Your task to perform on an android device: change keyboard looks Image 0: 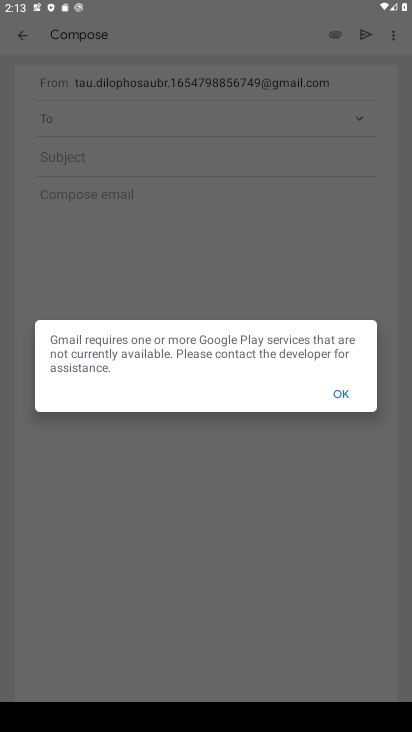
Step 0: press home button
Your task to perform on an android device: change keyboard looks Image 1: 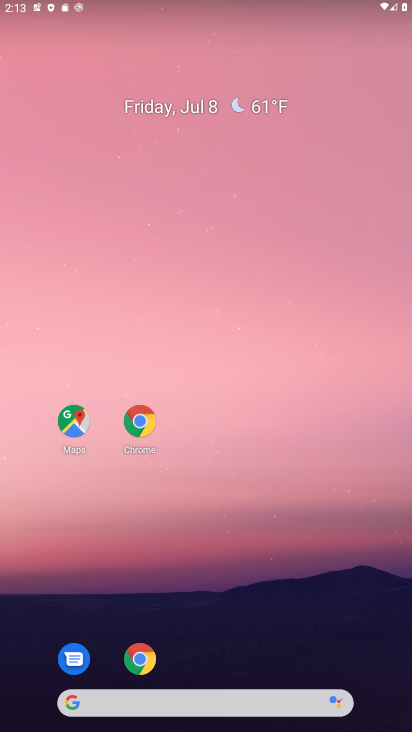
Step 1: drag from (221, 652) to (215, 157)
Your task to perform on an android device: change keyboard looks Image 2: 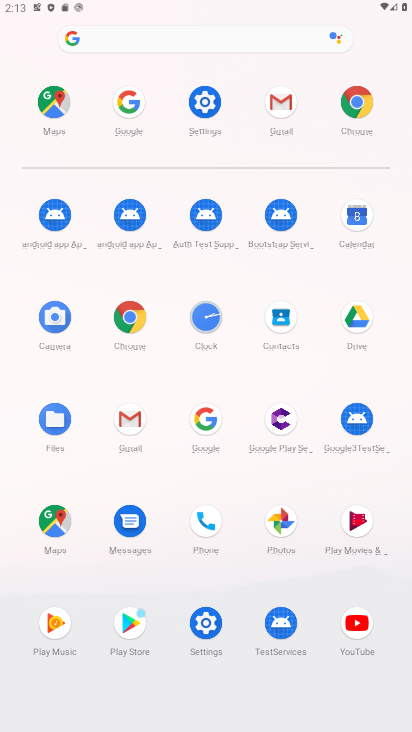
Step 2: click (205, 110)
Your task to perform on an android device: change keyboard looks Image 3: 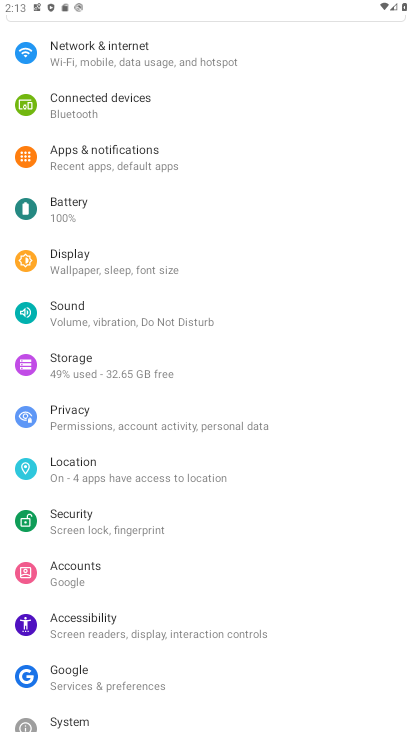
Step 3: click (89, 707)
Your task to perform on an android device: change keyboard looks Image 4: 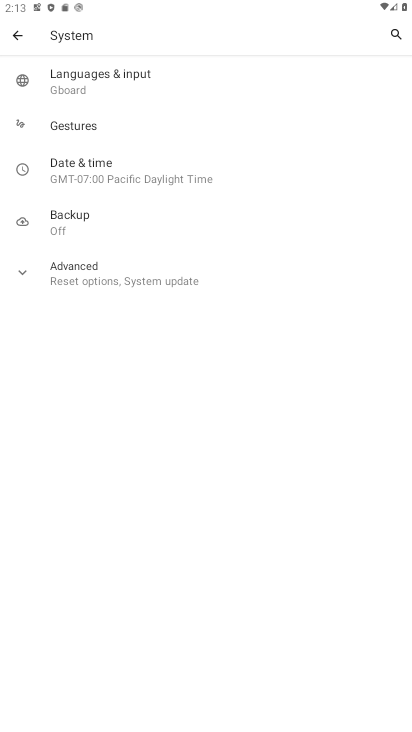
Step 4: click (77, 89)
Your task to perform on an android device: change keyboard looks Image 5: 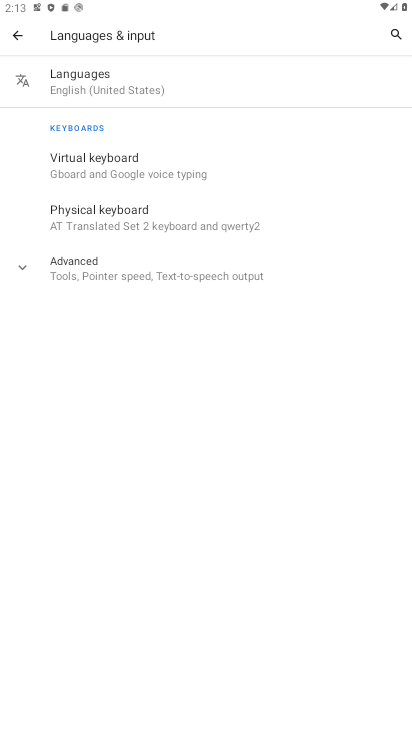
Step 5: click (104, 152)
Your task to perform on an android device: change keyboard looks Image 6: 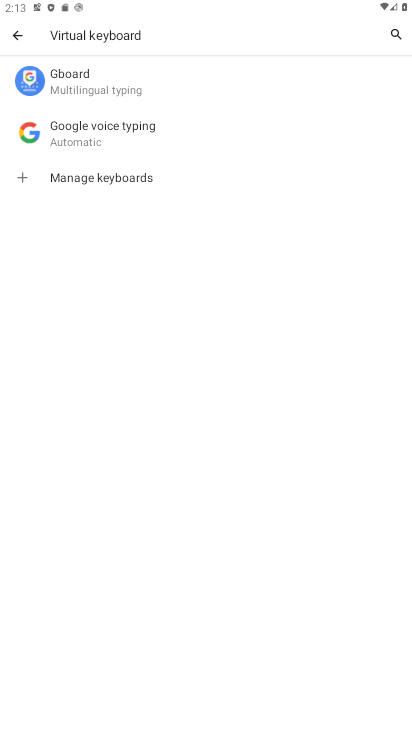
Step 6: click (63, 68)
Your task to perform on an android device: change keyboard looks Image 7: 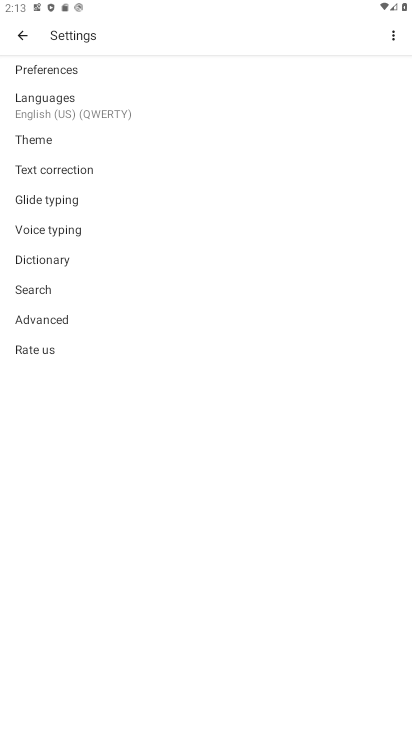
Step 7: click (49, 138)
Your task to perform on an android device: change keyboard looks Image 8: 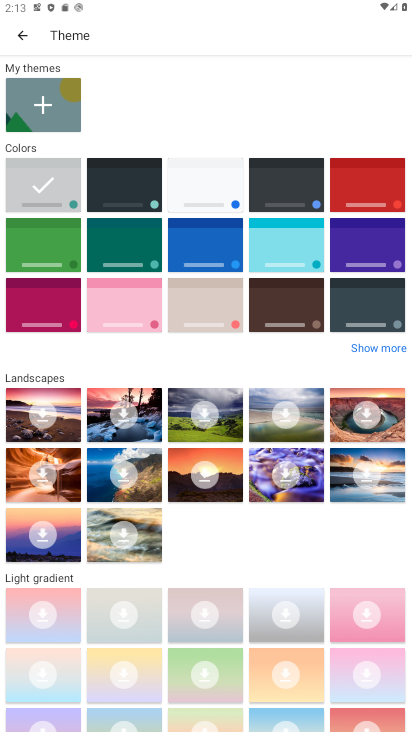
Step 8: click (135, 190)
Your task to perform on an android device: change keyboard looks Image 9: 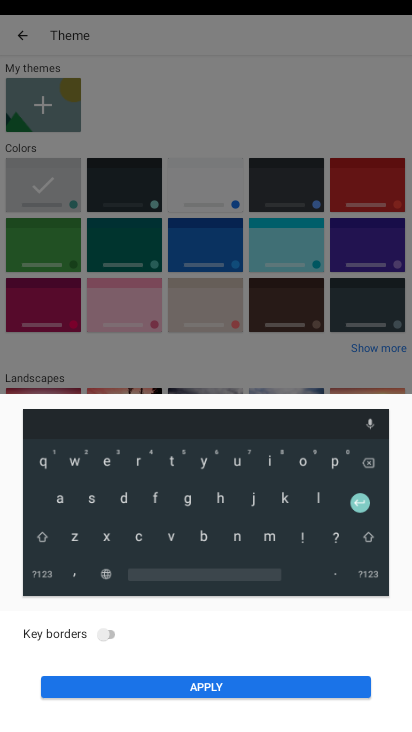
Step 9: click (193, 679)
Your task to perform on an android device: change keyboard looks Image 10: 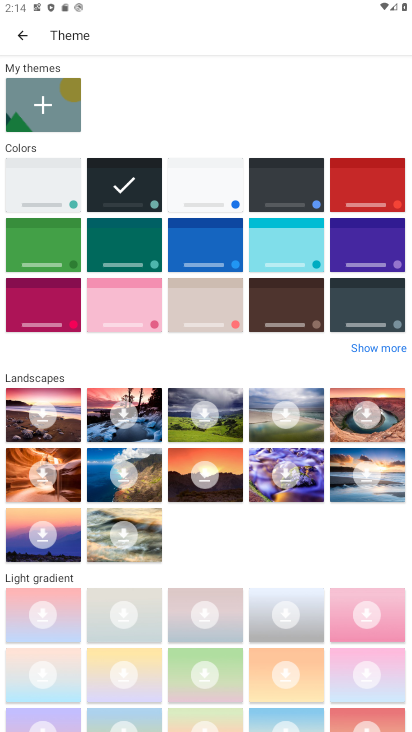
Step 10: task complete